Your task to perform on an android device: turn pop-ups off in chrome Image 0: 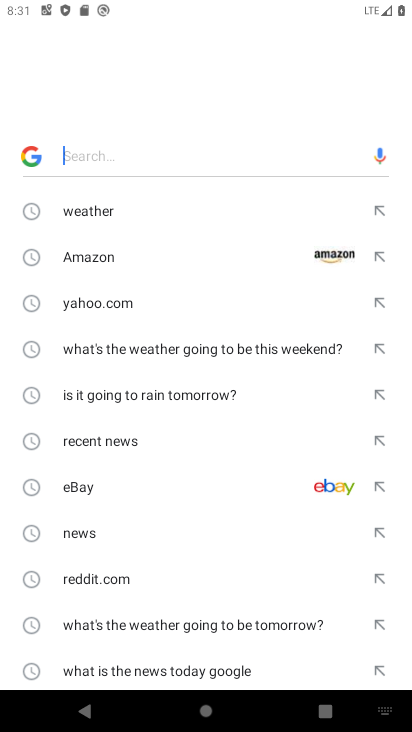
Step 0: press home button
Your task to perform on an android device: turn pop-ups off in chrome Image 1: 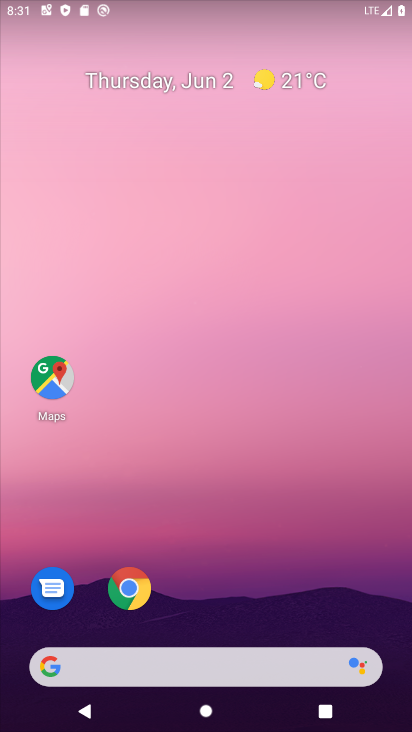
Step 1: drag from (201, 434) to (225, 258)
Your task to perform on an android device: turn pop-ups off in chrome Image 2: 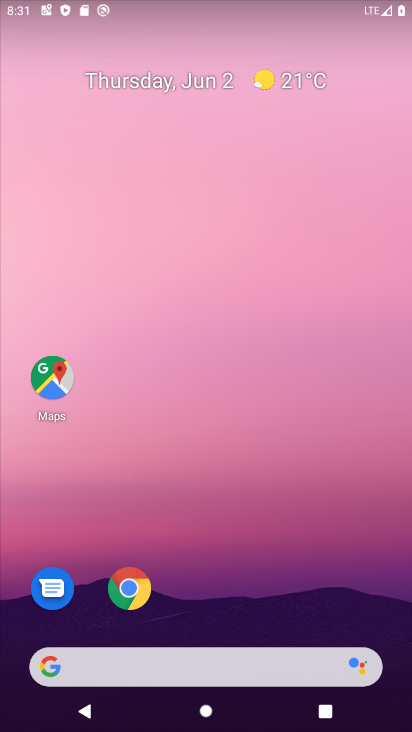
Step 2: drag from (271, 579) to (310, 57)
Your task to perform on an android device: turn pop-ups off in chrome Image 3: 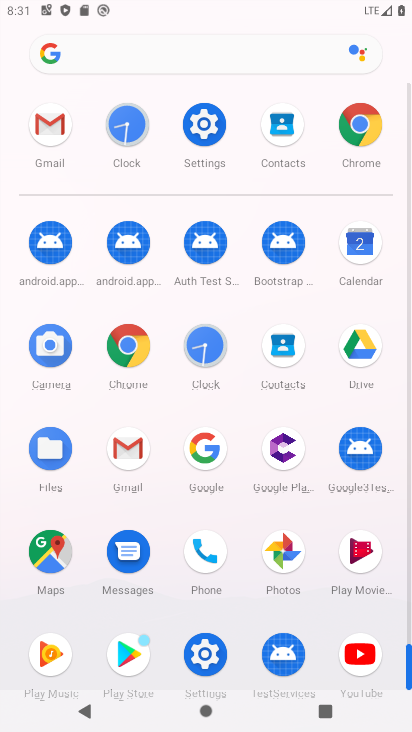
Step 3: click (373, 146)
Your task to perform on an android device: turn pop-ups off in chrome Image 4: 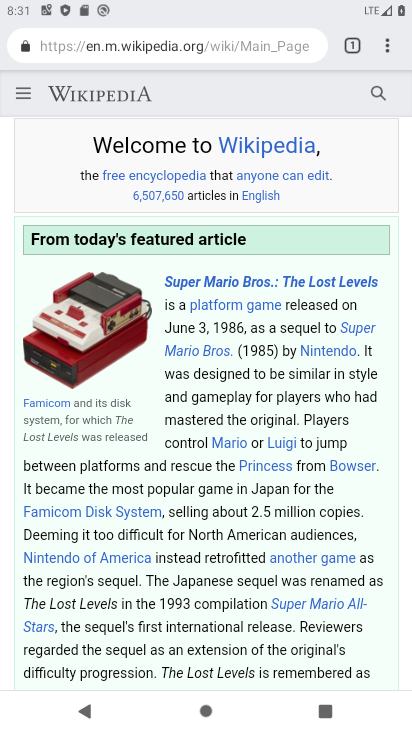
Step 4: click (383, 45)
Your task to perform on an android device: turn pop-ups off in chrome Image 5: 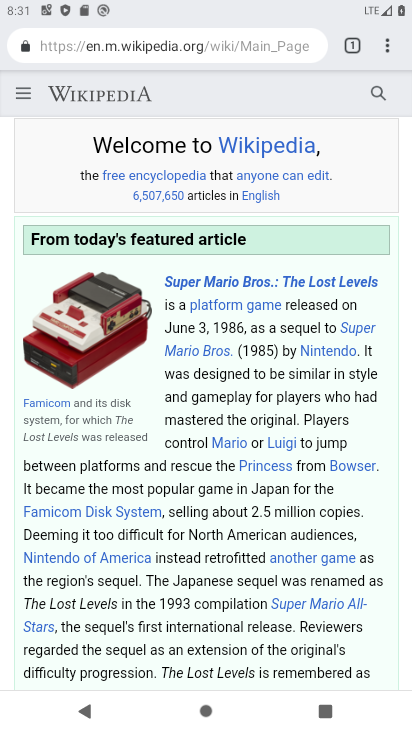
Step 5: click (387, 45)
Your task to perform on an android device: turn pop-ups off in chrome Image 6: 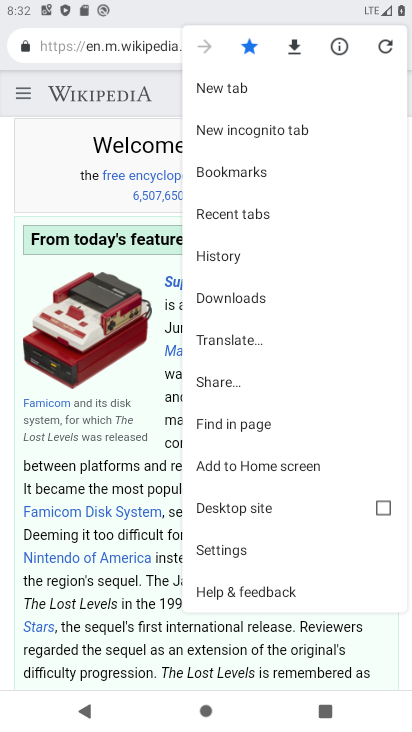
Step 6: click (246, 550)
Your task to perform on an android device: turn pop-ups off in chrome Image 7: 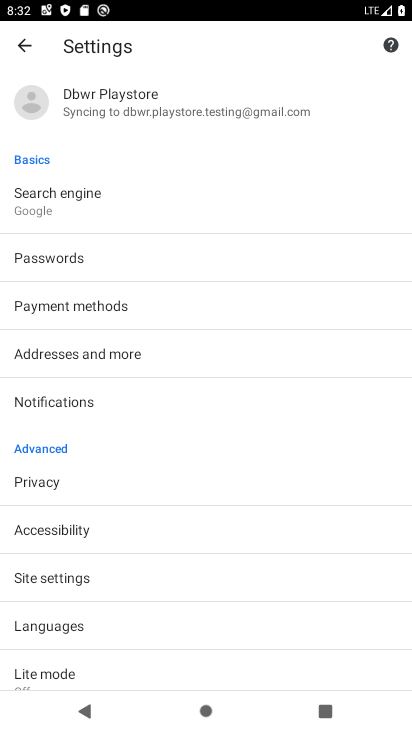
Step 7: drag from (179, 540) to (250, 146)
Your task to perform on an android device: turn pop-ups off in chrome Image 8: 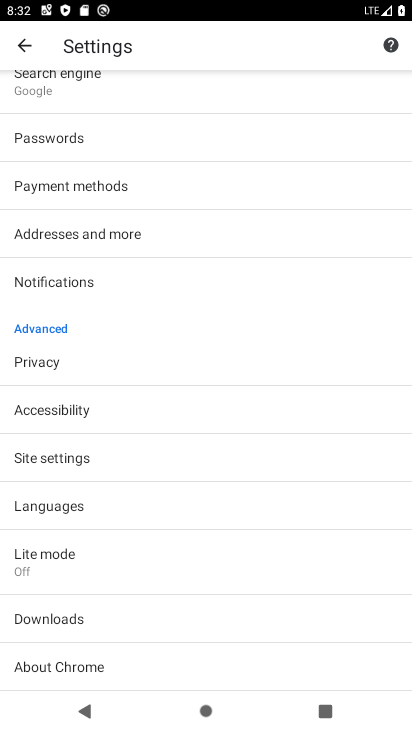
Step 8: click (76, 452)
Your task to perform on an android device: turn pop-ups off in chrome Image 9: 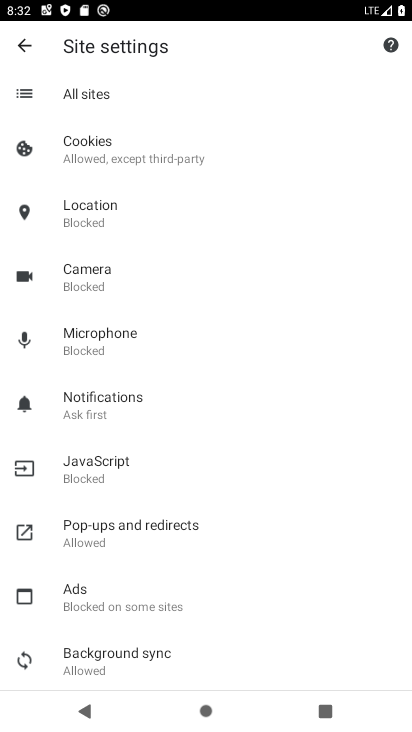
Step 9: drag from (177, 478) to (193, 275)
Your task to perform on an android device: turn pop-ups off in chrome Image 10: 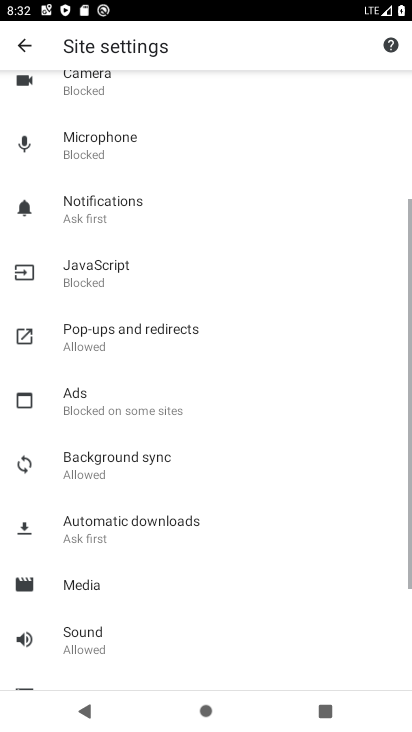
Step 10: click (172, 335)
Your task to perform on an android device: turn pop-ups off in chrome Image 11: 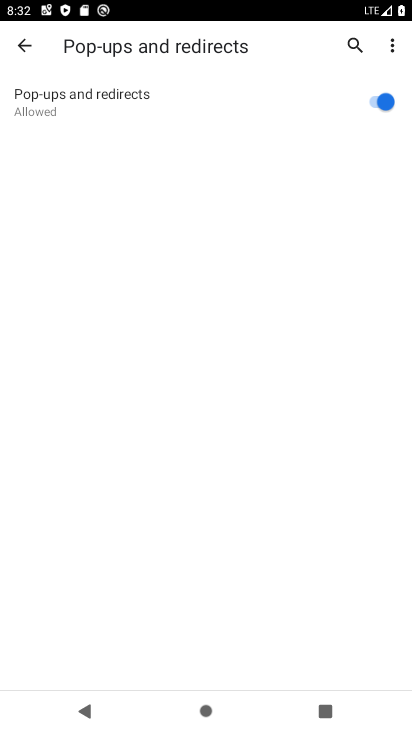
Step 11: click (388, 110)
Your task to perform on an android device: turn pop-ups off in chrome Image 12: 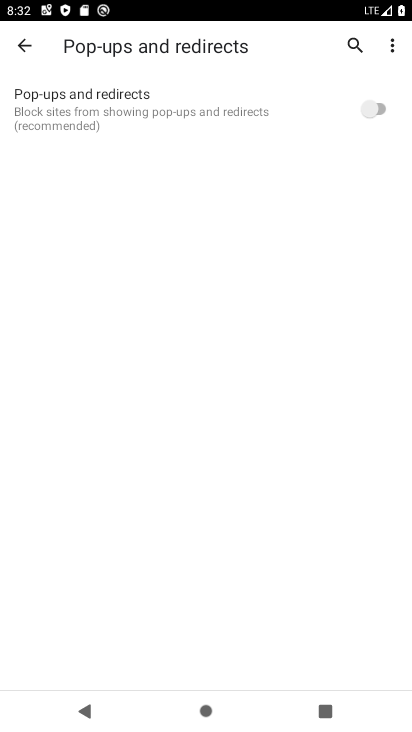
Step 12: task complete